Your task to perform on an android device: show emergency info Image 0: 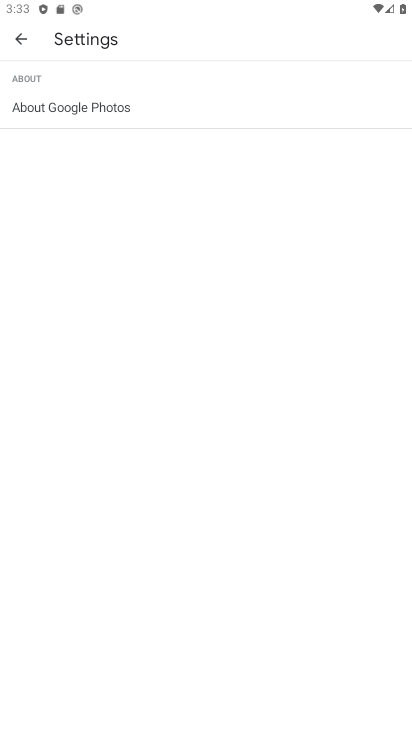
Step 0: drag from (220, 515) to (343, 88)
Your task to perform on an android device: show emergency info Image 1: 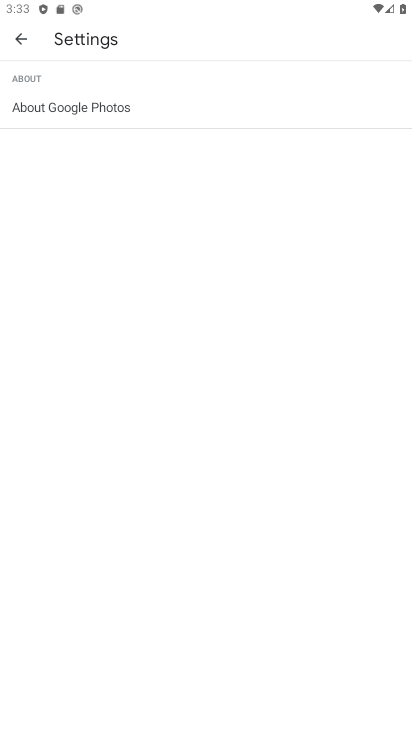
Step 1: press back button
Your task to perform on an android device: show emergency info Image 2: 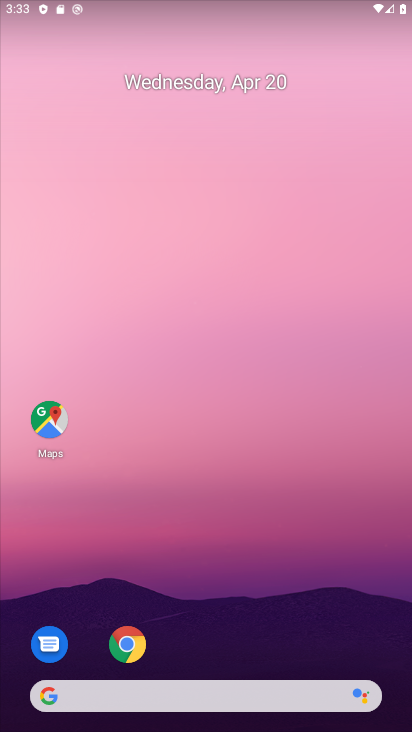
Step 2: drag from (154, 664) to (234, 83)
Your task to perform on an android device: show emergency info Image 3: 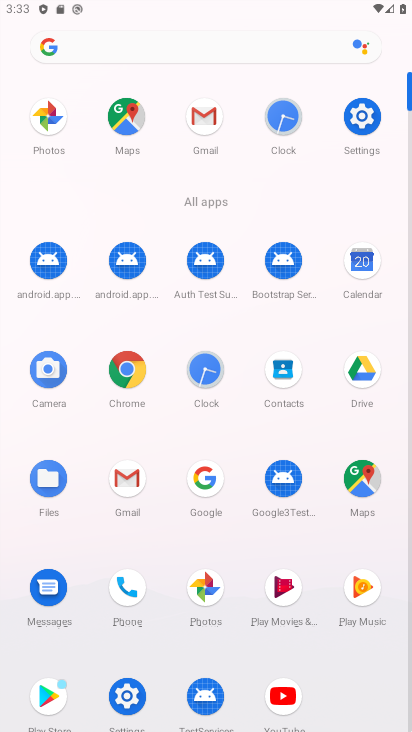
Step 3: click (123, 704)
Your task to perform on an android device: show emergency info Image 4: 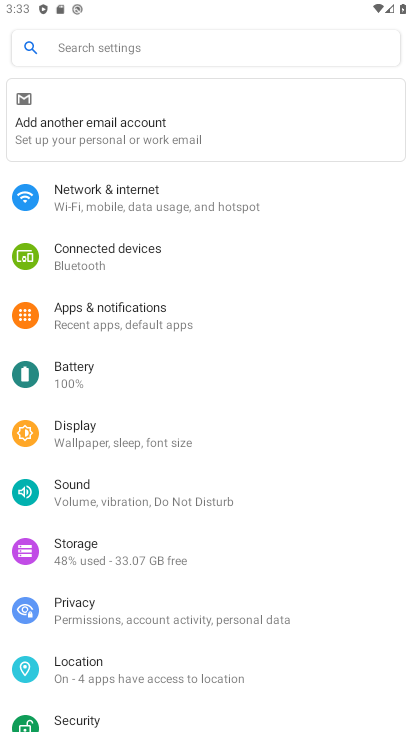
Step 4: drag from (197, 647) to (280, 202)
Your task to perform on an android device: show emergency info Image 5: 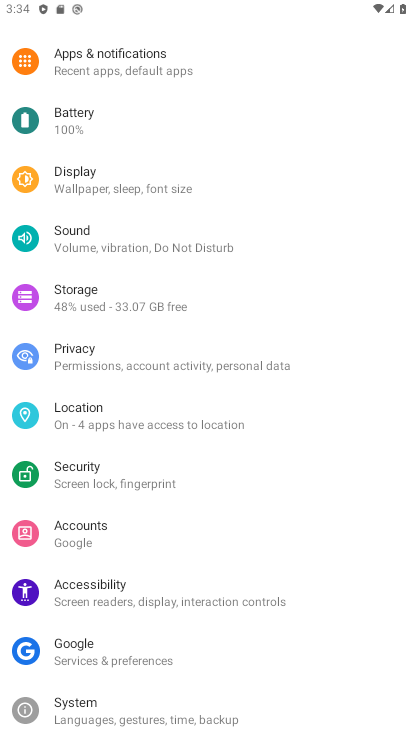
Step 5: drag from (193, 649) to (317, 221)
Your task to perform on an android device: show emergency info Image 6: 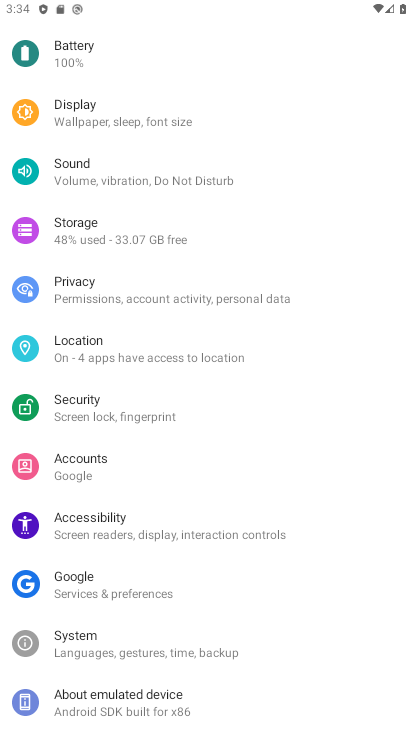
Step 6: click (180, 721)
Your task to perform on an android device: show emergency info Image 7: 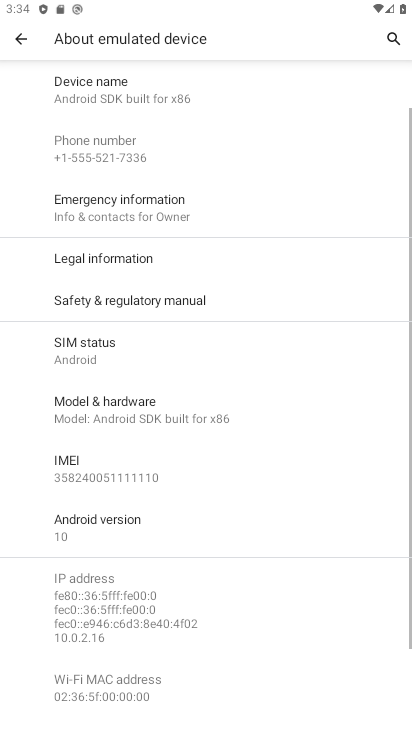
Step 7: click (207, 213)
Your task to perform on an android device: show emergency info Image 8: 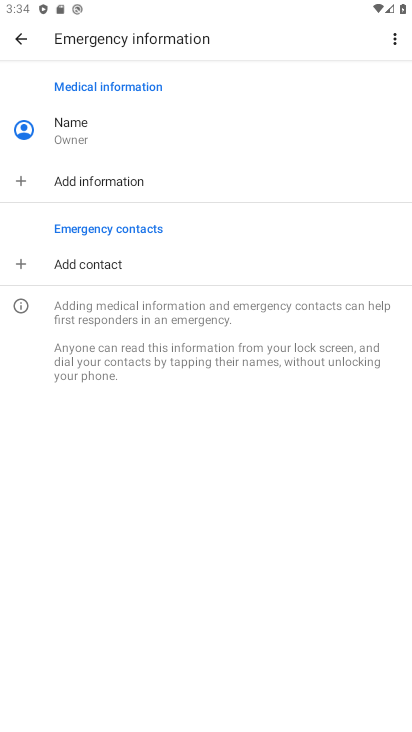
Step 8: task complete